Your task to perform on an android device: Open the map Image 0: 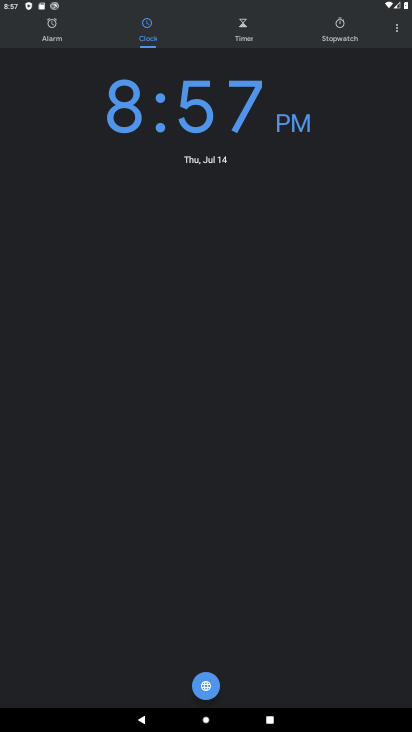
Step 0: press home button
Your task to perform on an android device: Open the map Image 1: 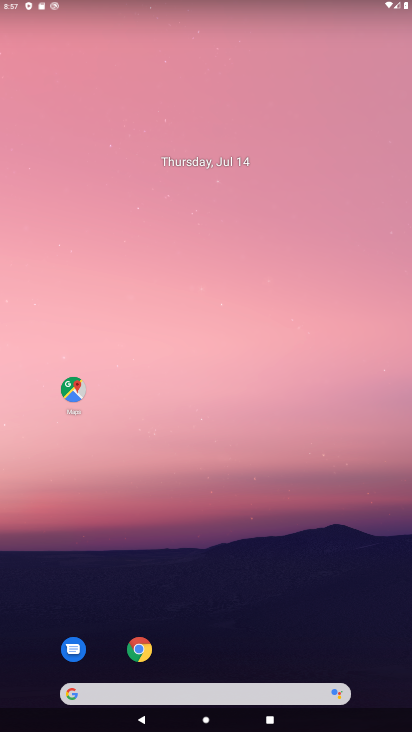
Step 1: click (62, 400)
Your task to perform on an android device: Open the map Image 2: 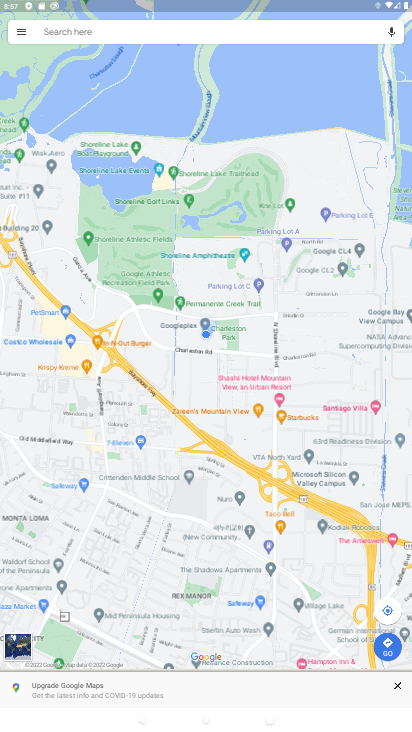
Step 2: task complete